Your task to perform on an android device: change your default location settings in chrome Image 0: 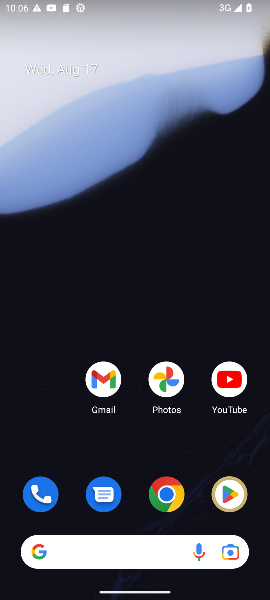
Step 0: drag from (146, 438) to (141, 85)
Your task to perform on an android device: change your default location settings in chrome Image 1: 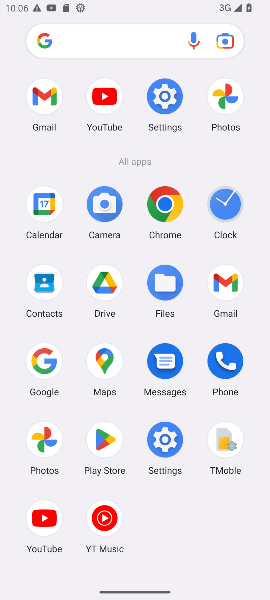
Step 1: click (168, 198)
Your task to perform on an android device: change your default location settings in chrome Image 2: 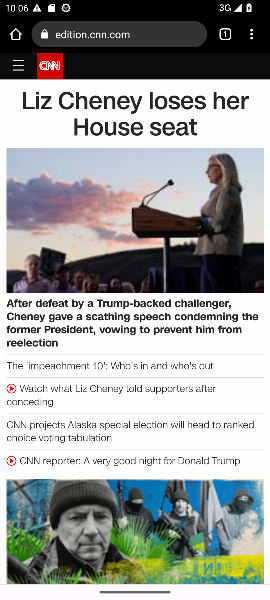
Step 2: drag from (249, 33) to (149, 437)
Your task to perform on an android device: change your default location settings in chrome Image 3: 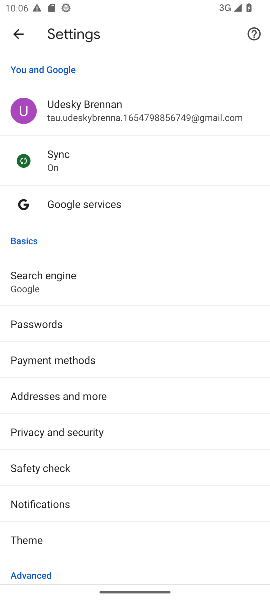
Step 3: drag from (57, 535) to (107, 146)
Your task to perform on an android device: change your default location settings in chrome Image 4: 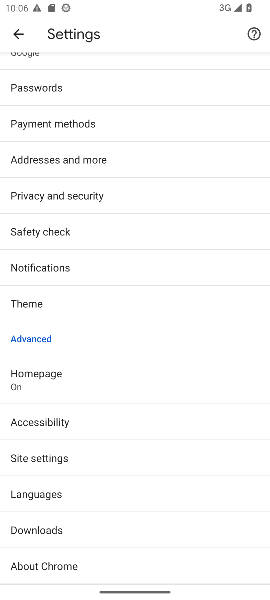
Step 4: click (56, 462)
Your task to perform on an android device: change your default location settings in chrome Image 5: 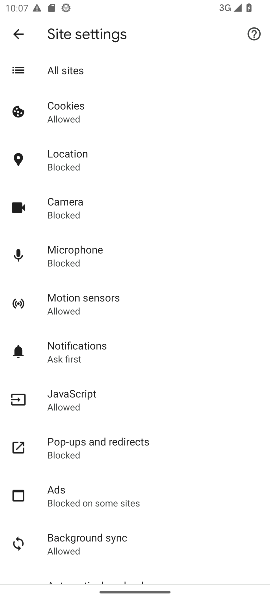
Step 5: click (65, 164)
Your task to perform on an android device: change your default location settings in chrome Image 6: 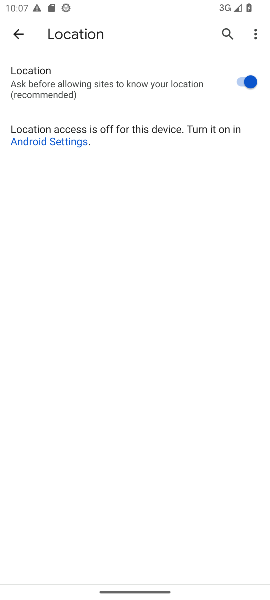
Step 6: task complete